Your task to perform on an android device: Go to ESPN.com Image 0: 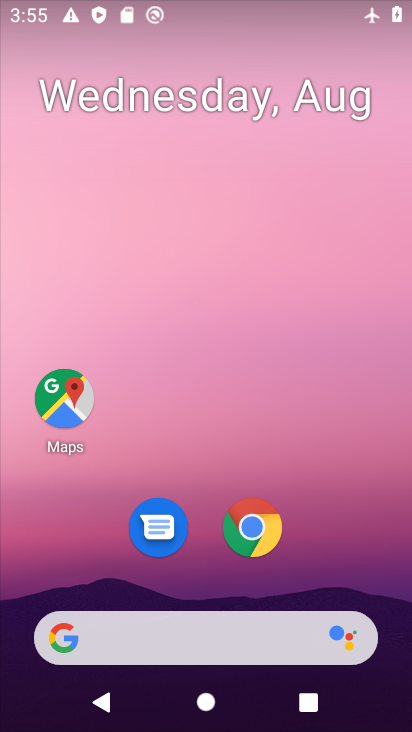
Step 0: click (226, 633)
Your task to perform on an android device: Go to ESPN.com Image 1: 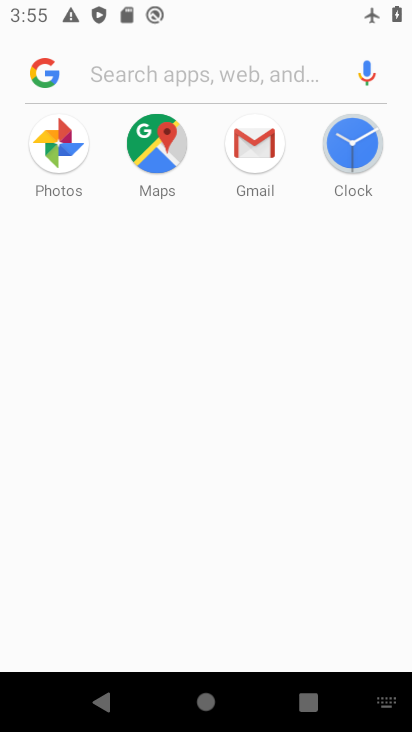
Step 1: type "espn"
Your task to perform on an android device: Go to ESPN.com Image 2: 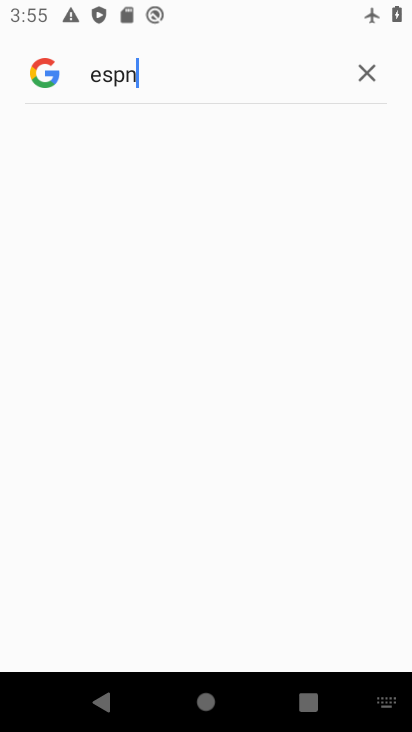
Step 2: drag from (261, 5) to (231, 316)
Your task to perform on an android device: Go to ESPN.com Image 3: 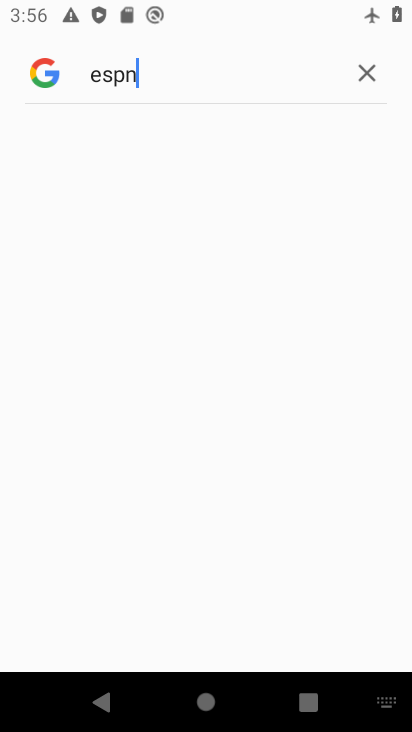
Step 3: drag from (218, 11) to (232, 529)
Your task to perform on an android device: Go to ESPN.com Image 4: 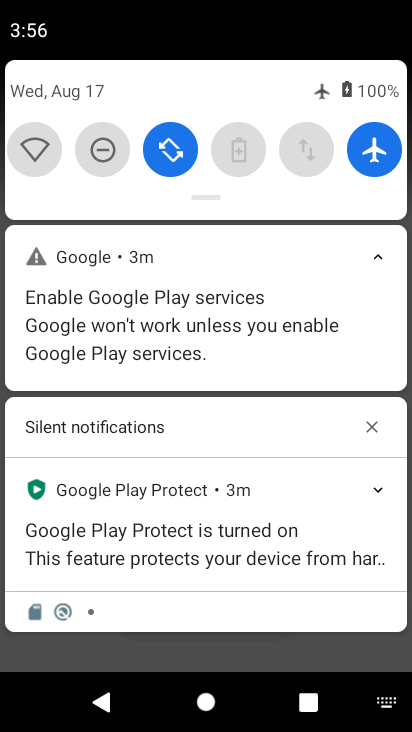
Step 4: click (366, 142)
Your task to perform on an android device: Go to ESPN.com Image 5: 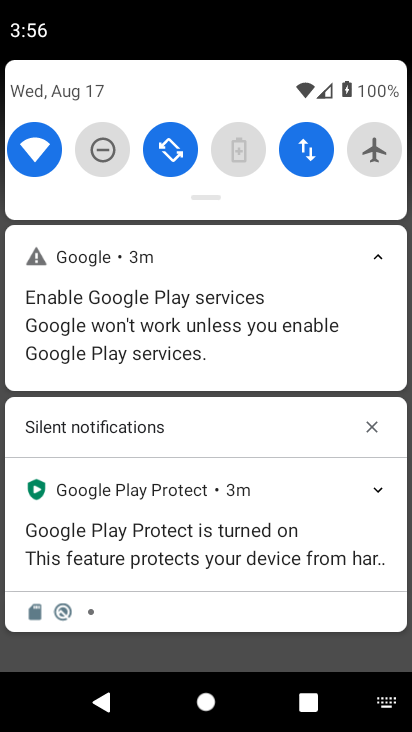
Step 5: task complete